Your task to perform on an android device: Open Google Maps Image 0: 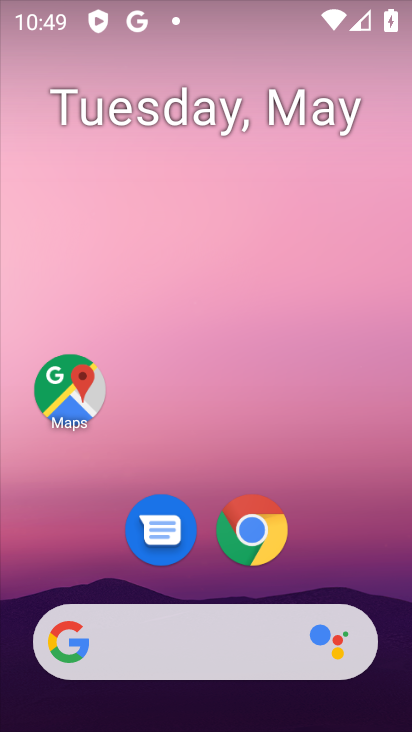
Step 0: click (80, 401)
Your task to perform on an android device: Open Google Maps Image 1: 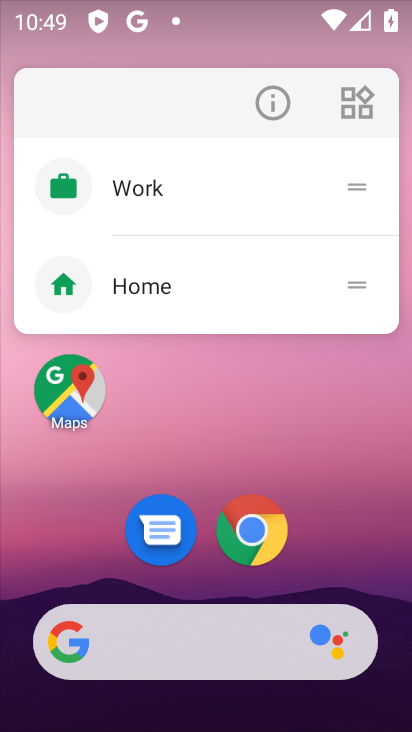
Step 1: click (58, 396)
Your task to perform on an android device: Open Google Maps Image 2: 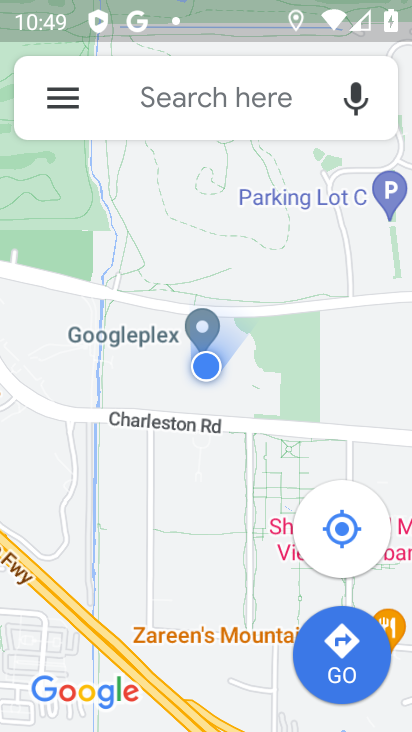
Step 2: task complete